Your task to perform on an android device: Open calendar and show me the fourth week of next month Image 0: 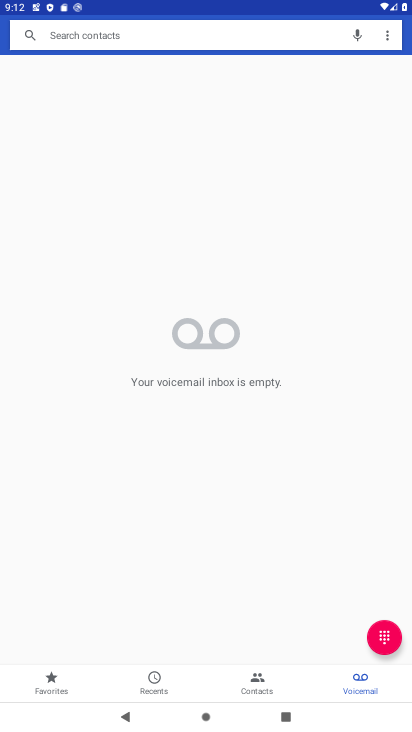
Step 0: press home button
Your task to perform on an android device: Open calendar and show me the fourth week of next month Image 1: 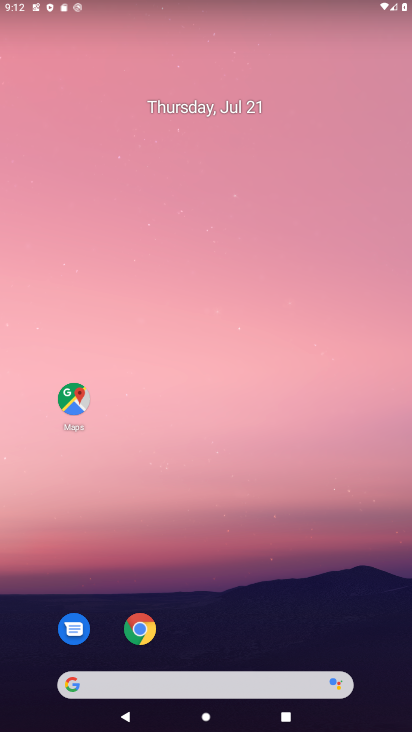
Step 1: click (216, 118)
Your task to perform on an android device: Open calendar and show me the fourth week of next month Image 2: 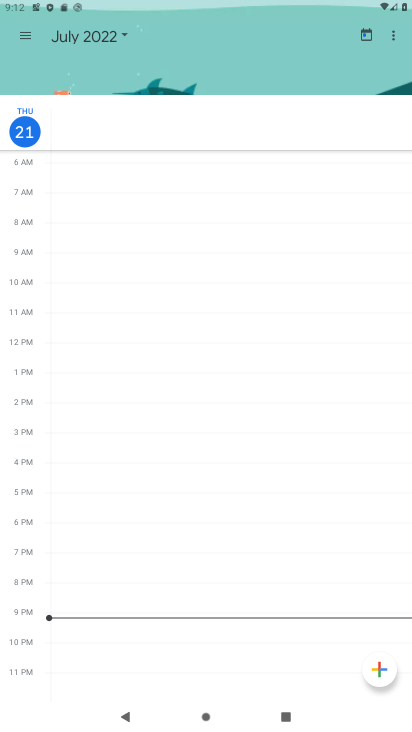
Step 2: click (81, 35)
Your task to perform on an android device: Open calendar and show me the fourth week of next month Image 3: 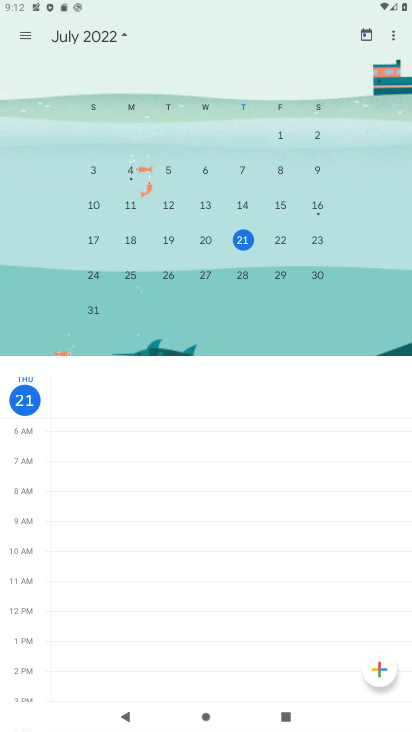
Step 3: drag from (390, 301) to (45, 255)
Your task to perform on an android device: Open calendar and show me the fourth week of next month Image 4: 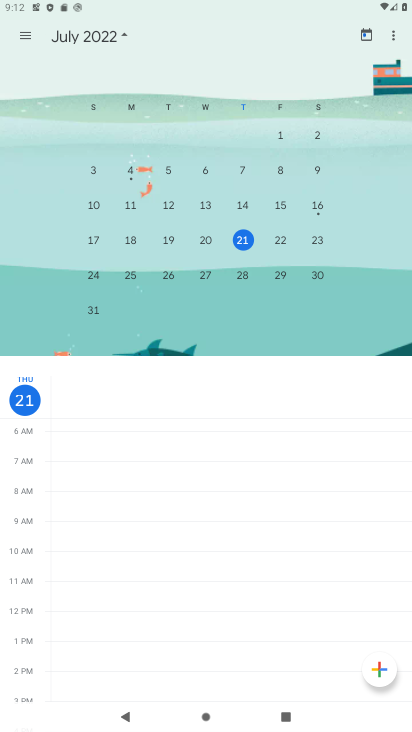
Step 4: drag from (363, 325) to (41, 303)
Your task to perform on an android device: Open calendar and show me the fourth week of next month Image 5: 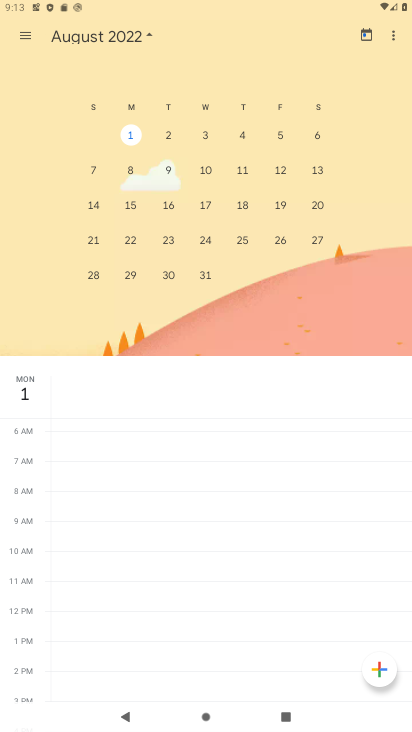
Step 5: click (234, 238)
Your task to perform on an android device: Open calendar and show me the fourth week of next month Image 6: 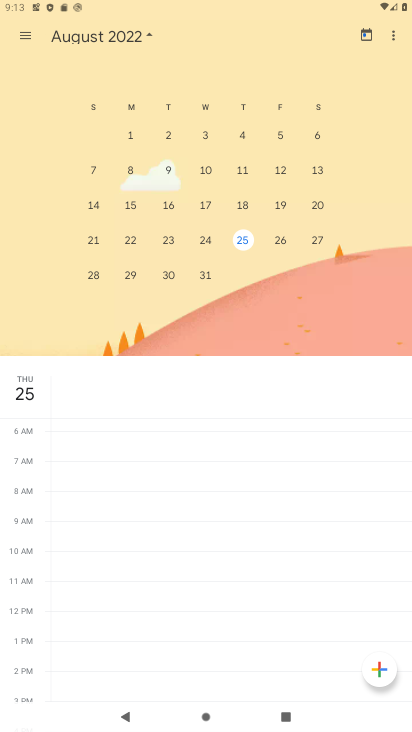
Step 6: task complete